Your task to perform on an android device: check data usage Image 0: 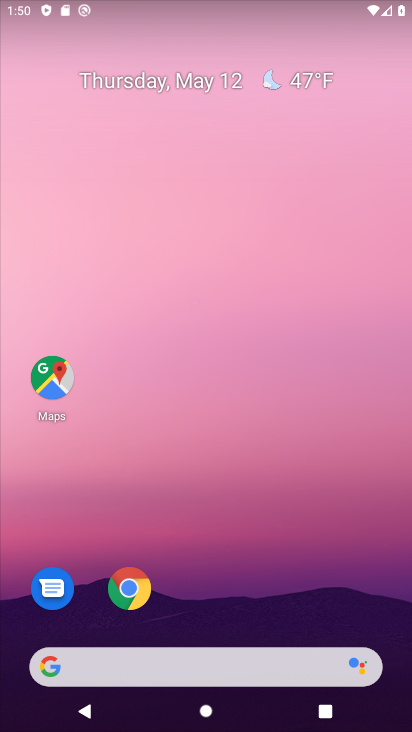
Step 0: drag from (379, 616) to (197, 70)
Your task to perform on an android device: check data usage Image 1: 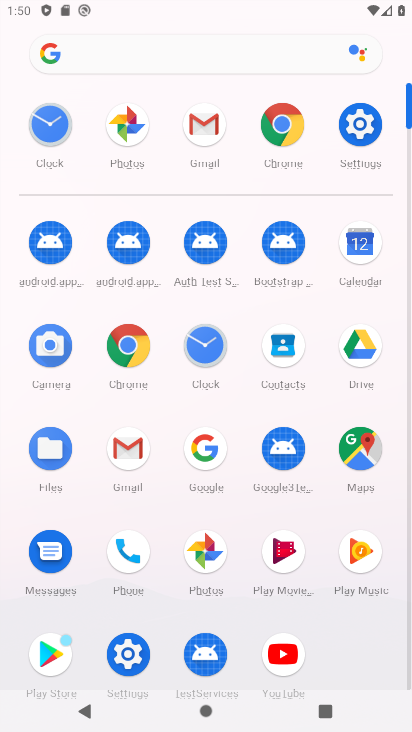
Step 1: click (132, 663)
Your task to perform on an android device: check data usage Image 2: 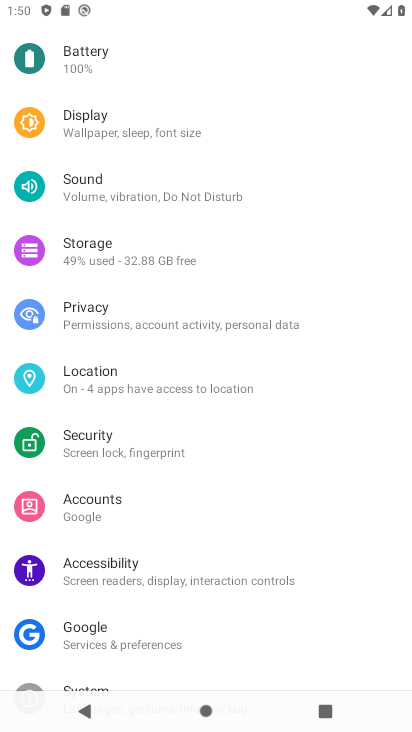
Step 2: drag from (247, 156) to (225, 590)
Your task to perform on an android device: check data usage Image 3: 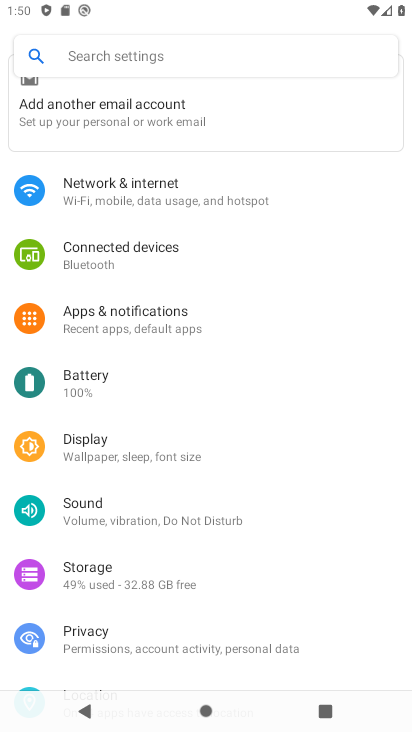
Step 3: click (224, 194)
Your task to perform on an android device: check data usage Image 4: 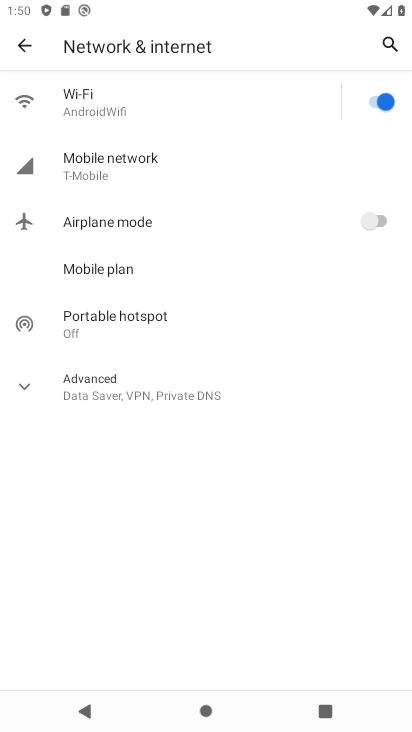
Step 4: click (185, 188)
Your task to perform on an android device: check data usage Image 5: 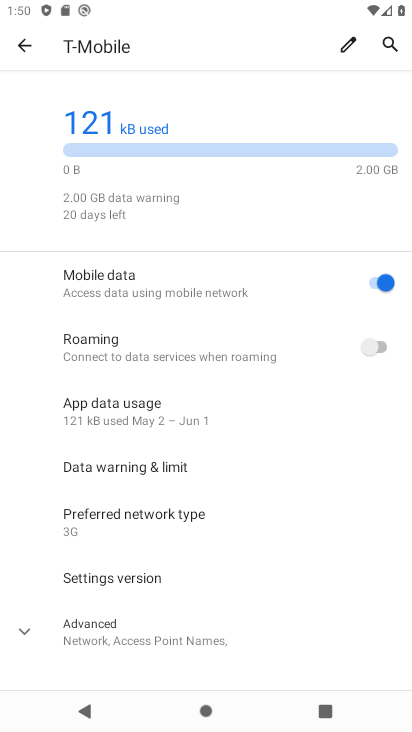
Step 5: click (120, 411)
Your task to perform on an android device: check data usage Image 6: 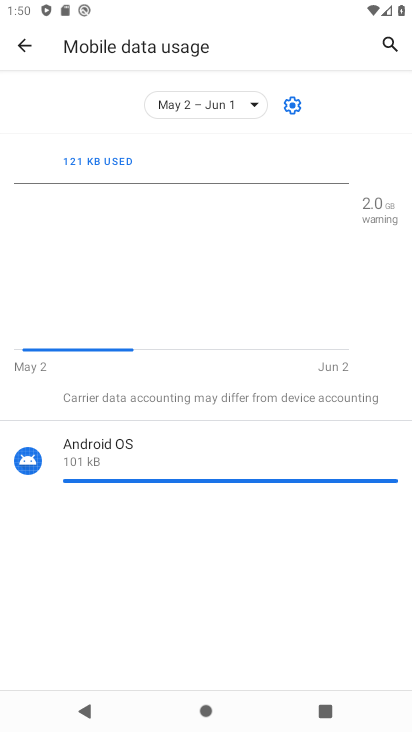
Step 6: task complete